Your task to perform on an android device: change notification settings in the gmail app Image 0: 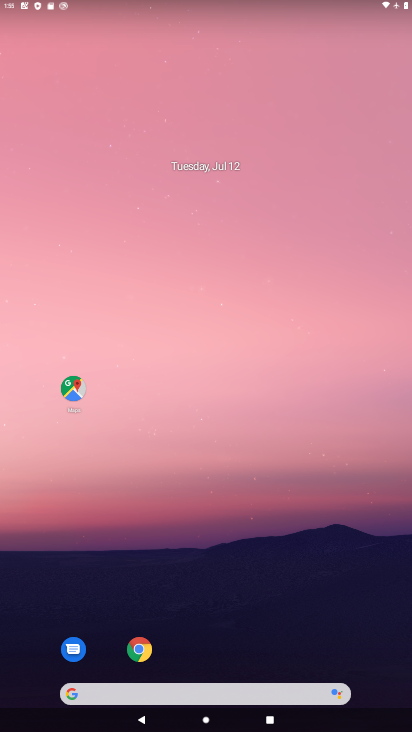
Step 0: drag from (266, 383) to (268, 190)
Your task to perform on an android device: change notification settings in the gmail app Image 1: 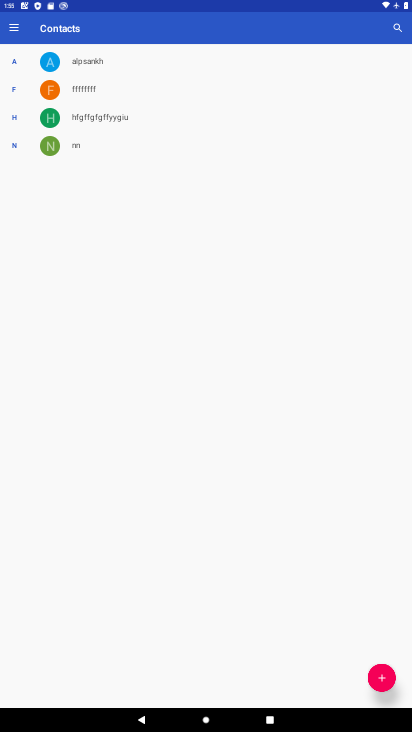
Step 1: press home button
Your task to perform on an android device: change notification settings in the gmail app Image 2: 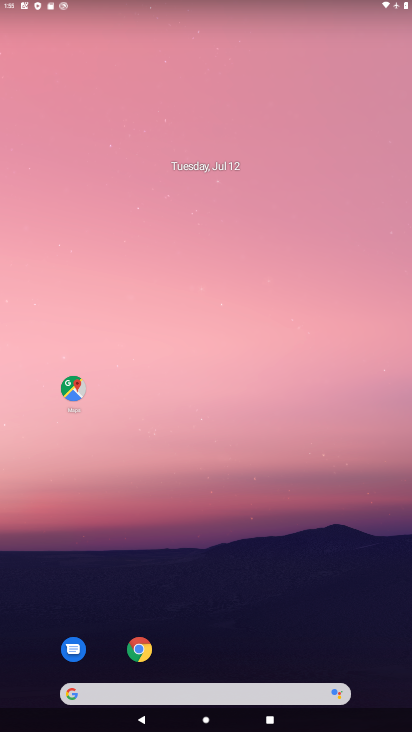
Step 2: click (142, 649)
Your task to perform on an android device: change notification settings in the gmail app Image 3: 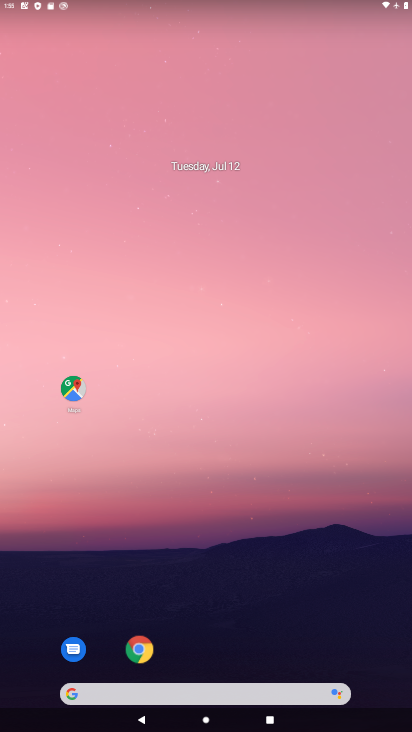
Step 3: press home button
Your task to perform on an android device: change notification settings in the gmail app Image 4: 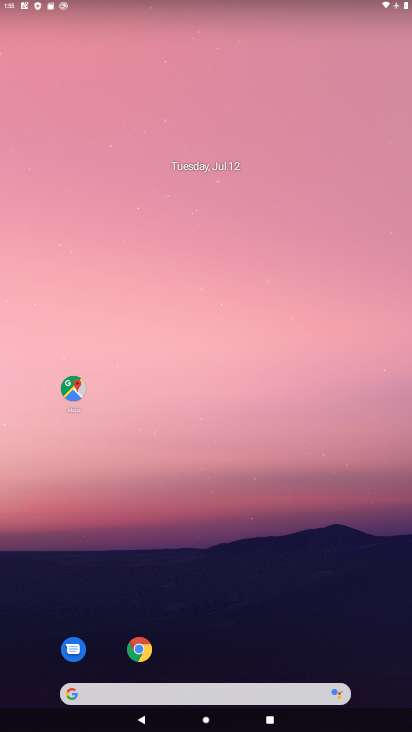
Step 4: drag from (250, 645) to (250, 232)
Your task to perform on an android device: change notification settings in the gmail app Image 5: 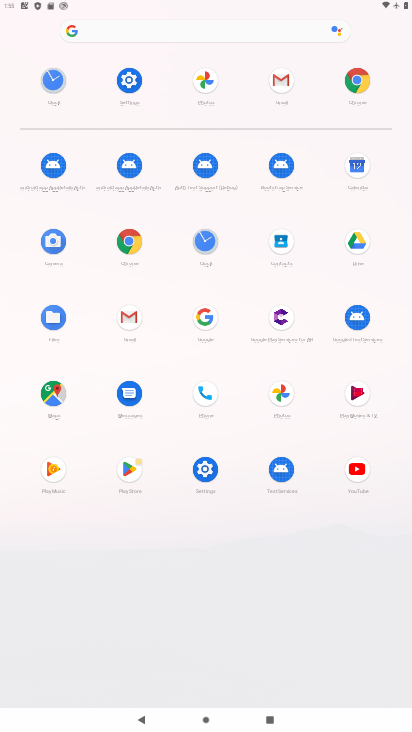
Step 5: click (277, 95)
Your task to perform on an android device: change notification settings in the gmail app Image 6: 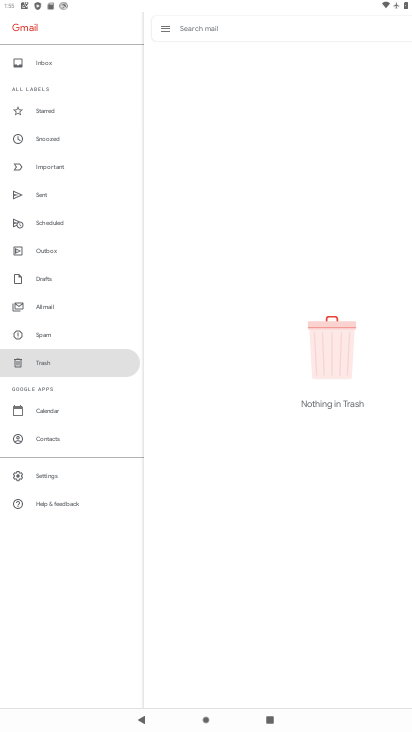
Step 6: click (69, 475)
Your task to perform on an android device: change notification settings in the gmail app Image 7: 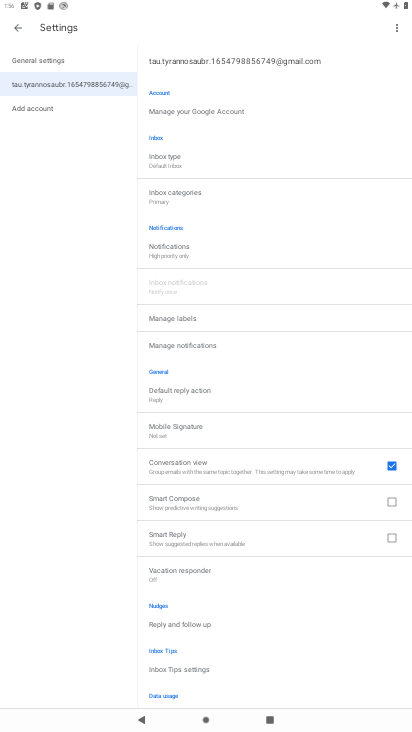
Step 7: click (162, 257)
Your task to perform on an android device: change notification settings in the gmail app Image 8: 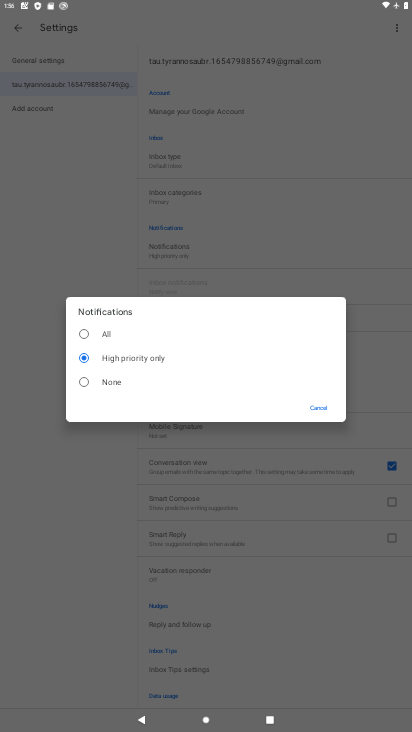
Step 8: click (144, 359)
Your task to perform on an android device: change notification settings in the gmail app Image 9: 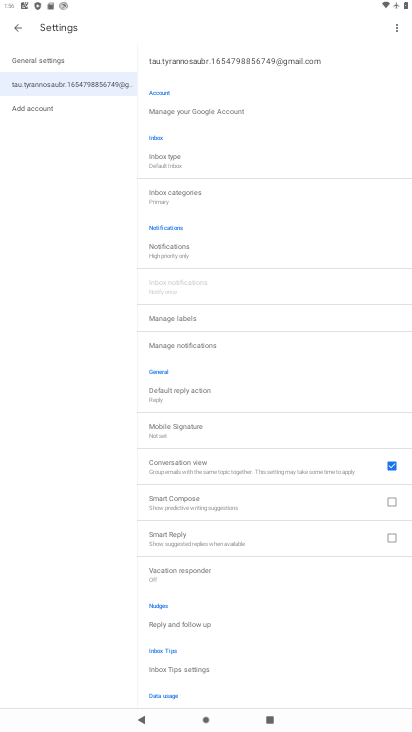
Step 9: task complete